Your task to perform on an android device: Set an alarm for 9am Image 0: 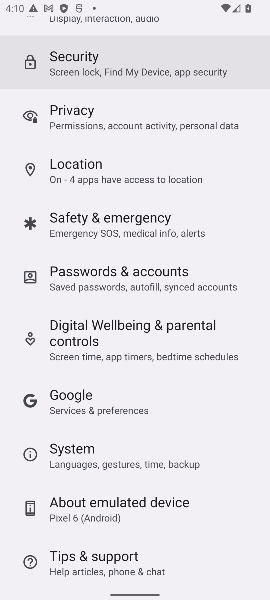
Step 0: press home button
Your task to perform on an android device: Set an alarm for 9am Image 1: 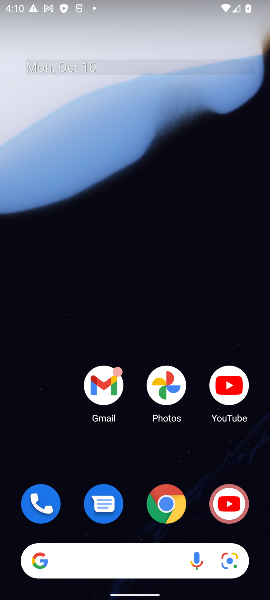
Step 1: drag from (107, 472) to (130, 4)
Your task to perform on an android device: Set an alarm for 9am Image 2: 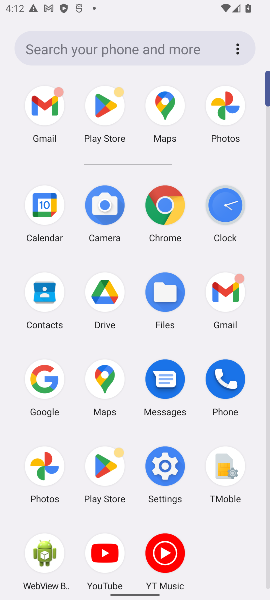
Step 2: click (230, 213)
Your task to perform on an android device: Set an alarm for 9am Image 3: 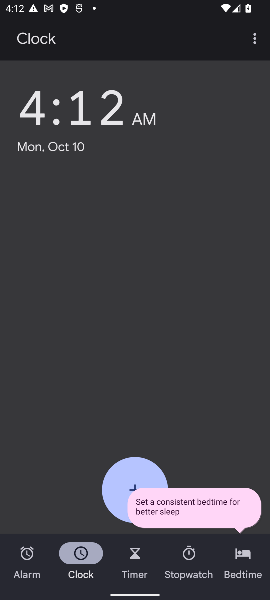
Step 3: click (20, 566)
Your task to perform on an android device: Set an alarm for 9am Image 4: 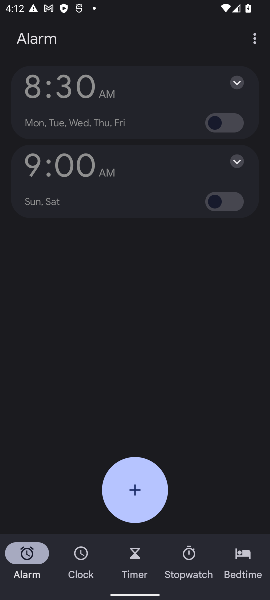
Step 4: click (120, 484)
Your task to perform on an android device: Set an alarm for 9am Image 5: 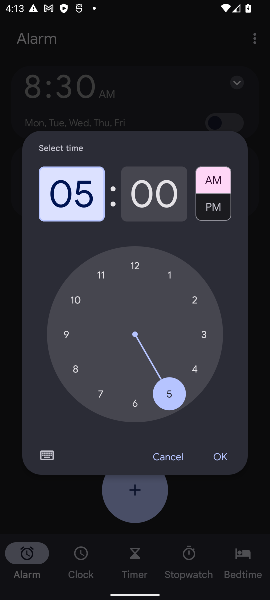
Step 5: click (56, 492)
Your task to perform on an android device: Set an alarm for 9am Image 6: 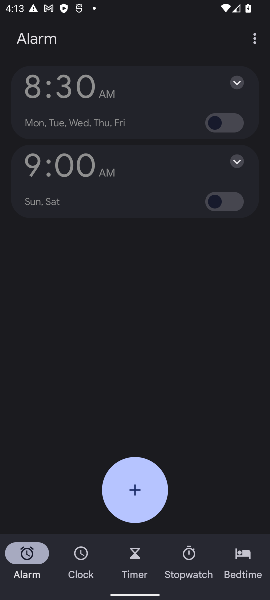
Step 6: click (222, 198)
Your task to perform on an android device: Set an alarm for 9am Image 7: 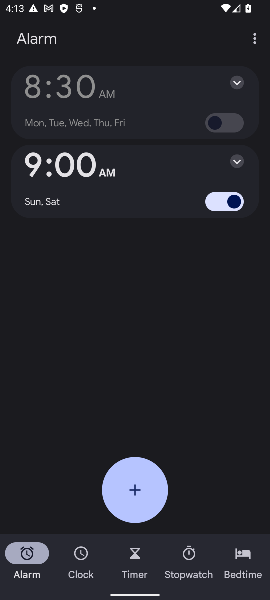
Step 7: task complete